Your task to perform on an android device: change notification settings in the gmail app Image 0: 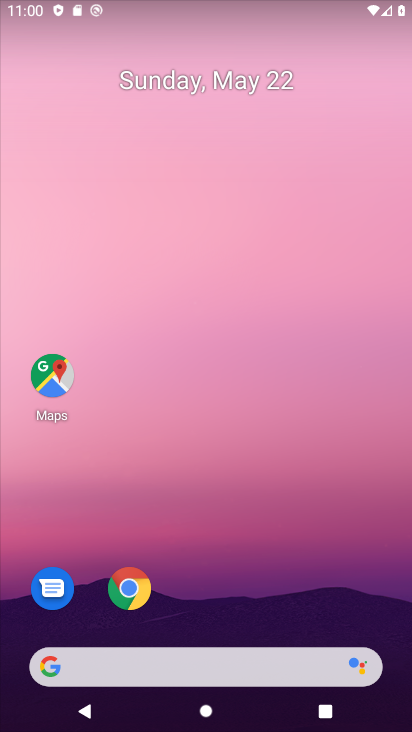
Step 0: drag from (141, 654) to (253, 164)
Your task to perform on an android device: change notification settings in the gmail app Image 1: 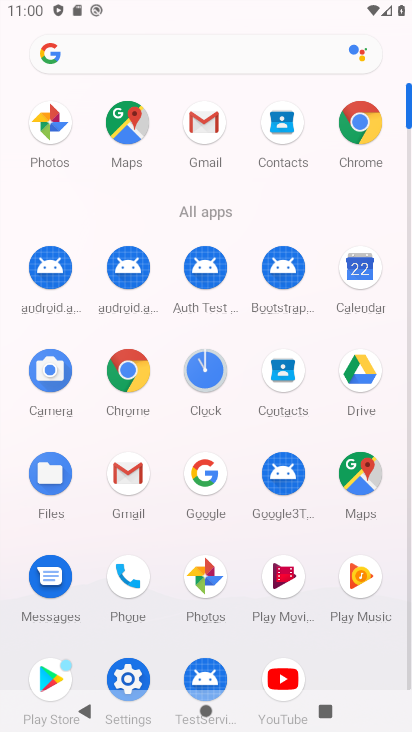
Step 1: click (203, 116)
Your task to perform on an android device: change notification settings in the gmail app Image 2: 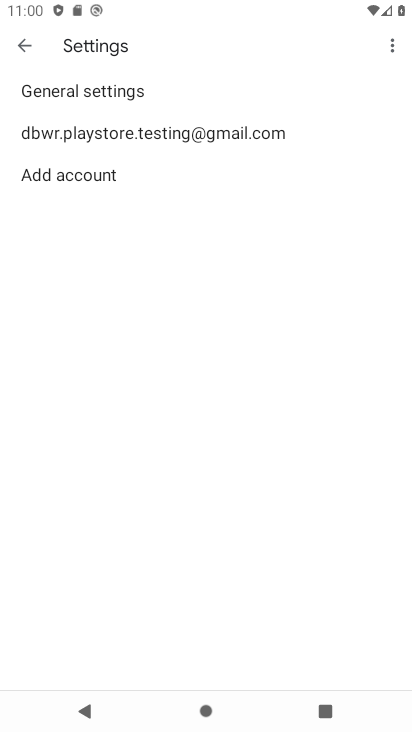
Step 2: click (35, 102)
Your task to perform on an android device: change notification settings in the gmail app Image 3: 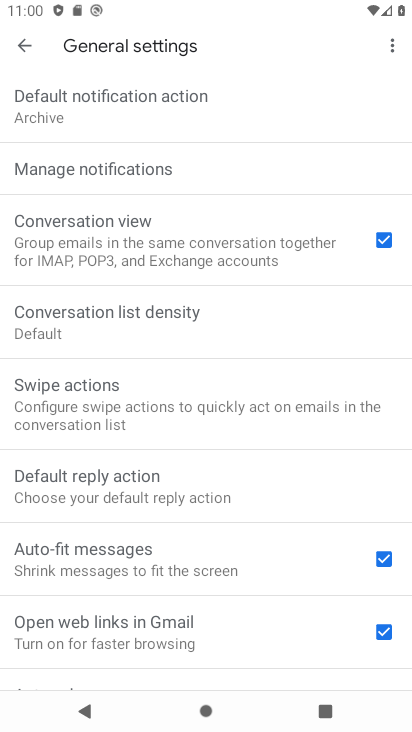
Step 3: click (80, 169)
Your task to perform on an android device: change notification settings in the gmail app Image 4: 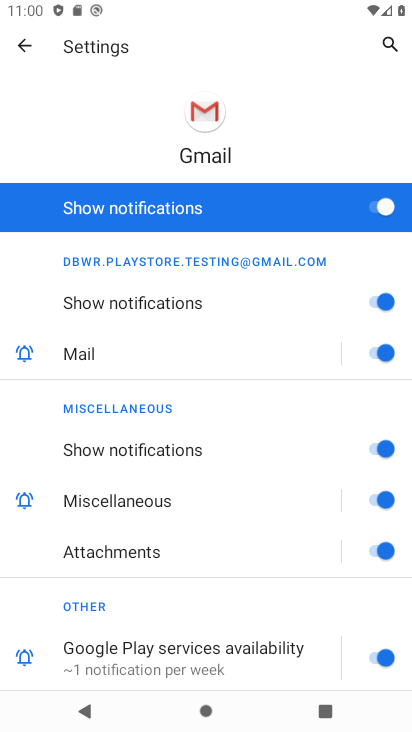
Step 4: click (370, 206)
Your task to perform on an android device: change notification settings in the gmail app Image 5: 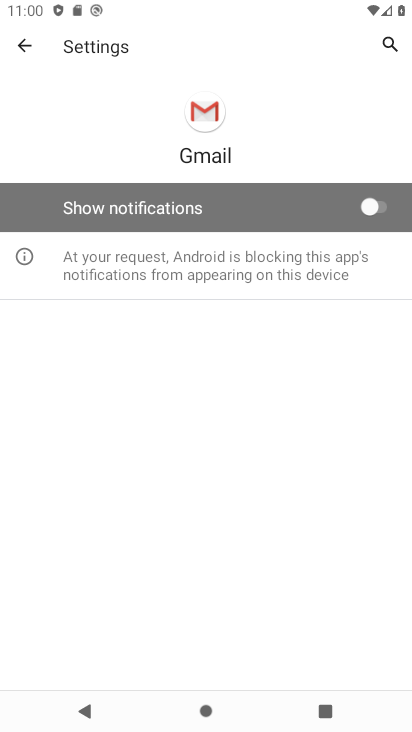
Step 5: task complete